Your task to perform on an android device: Open Reddit.com Image 0: 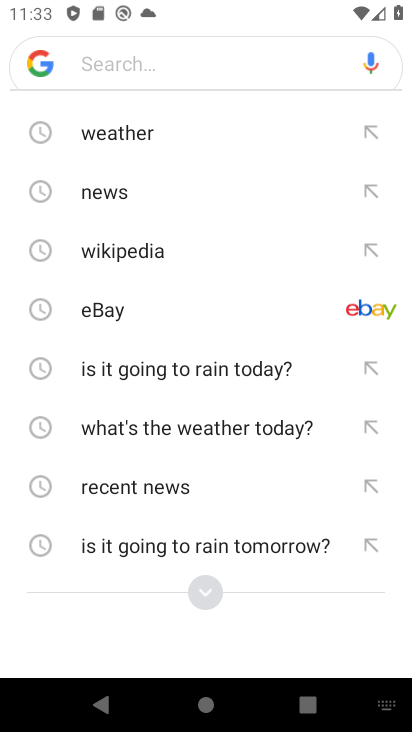
Step 0: press home button
Your task to perform on an android device: Open Reddit.com Image 1: 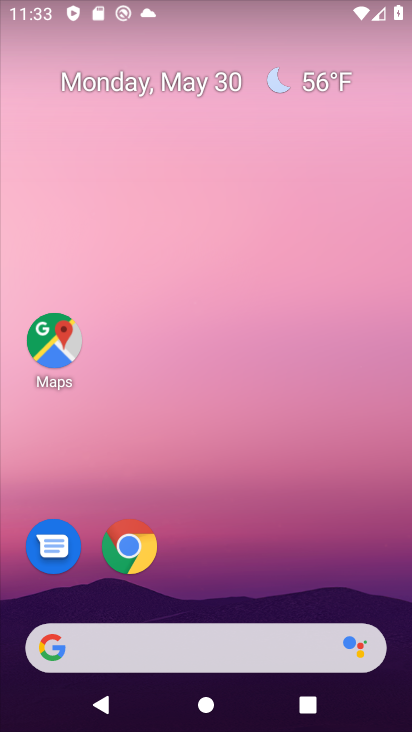
Step 1: click (131, 544)
Your task to perform on an android device: Open Reddit.com Image 2: 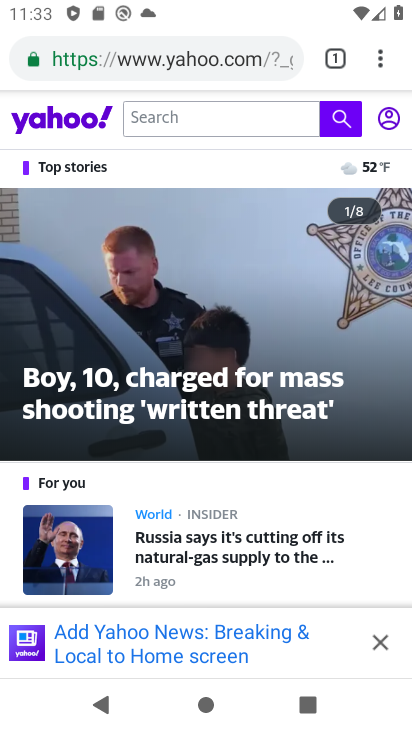
Step 2: click (234, 65)
Your task to perform on an android device: Open Reddit.com Image 3: 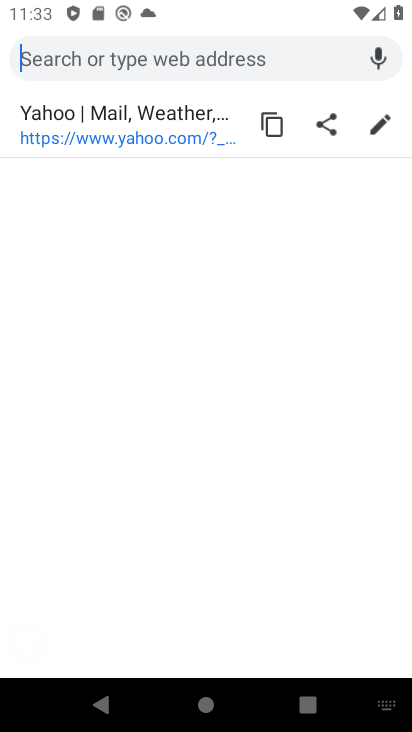
Step 3: type "Reddit.com"
Your task to perform on an android device: Open Reddit.com Image 4: 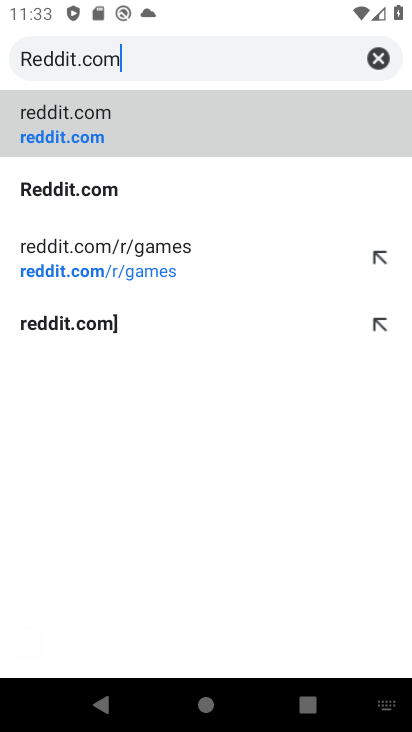
Step 4: click (84, 200)
Your task to perform on an android device: Open Reddit.com Image 5: 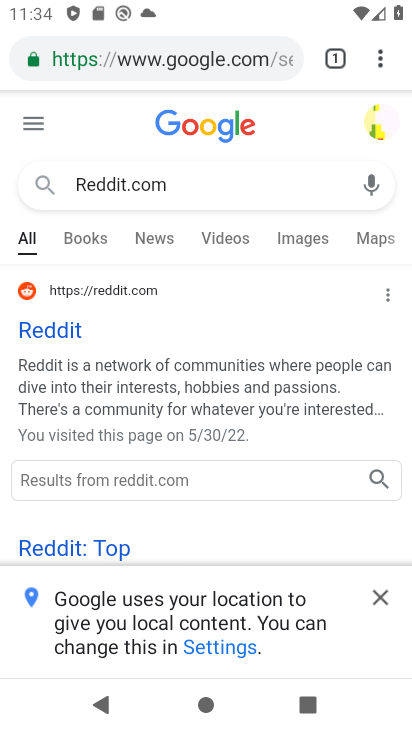
Step 5: click (64, 337)
Your task to perform on an android device: Open Reddit.com Image 6: 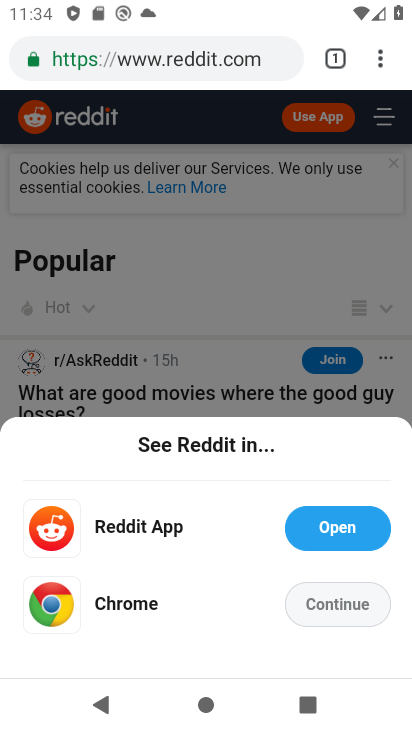
Step 6: click (354, 606)
Your task to perform on an android device: Open Reddit.com Image 7: 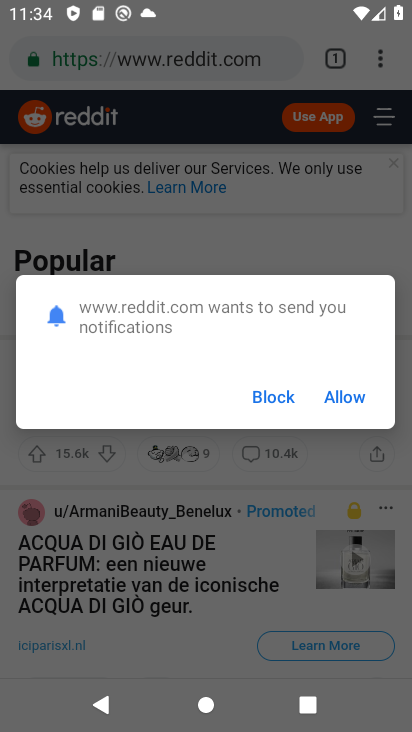
Step 7: click (349, 395)
Your task to perform on an android device: Open Reddit.com Image 8: 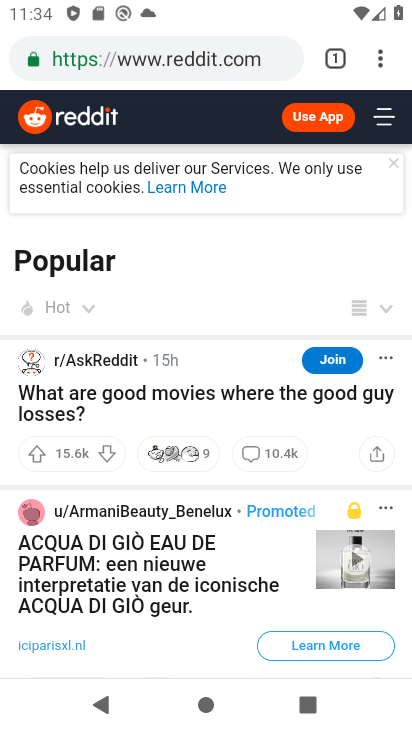
Step 8: task complete